Your task to perform on an android device: Do I have any events tomorrow? Image 0: 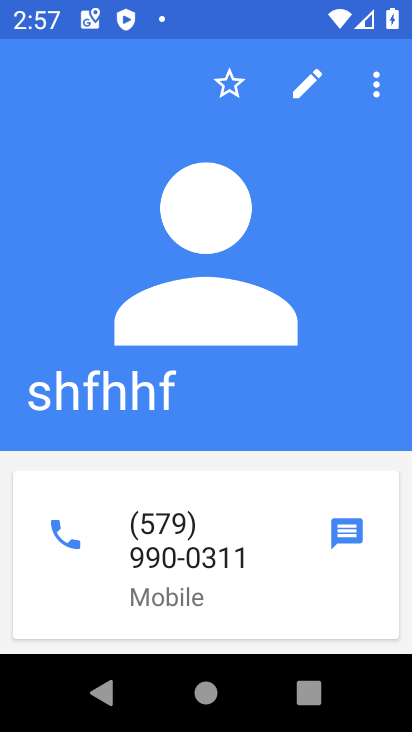
Step 0: press home button
Your task to perform on an android device: Do I have any events tomorrow? Image 1: 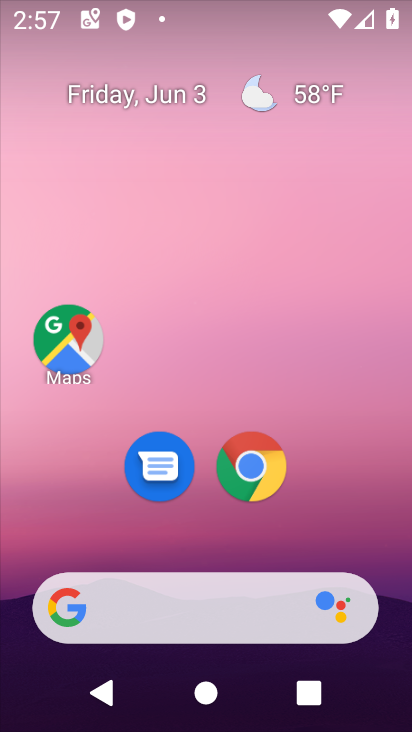
Step 1: click (387, 476)
Your task to perform on an android device: Do I have any events tomorrow? Image 2: 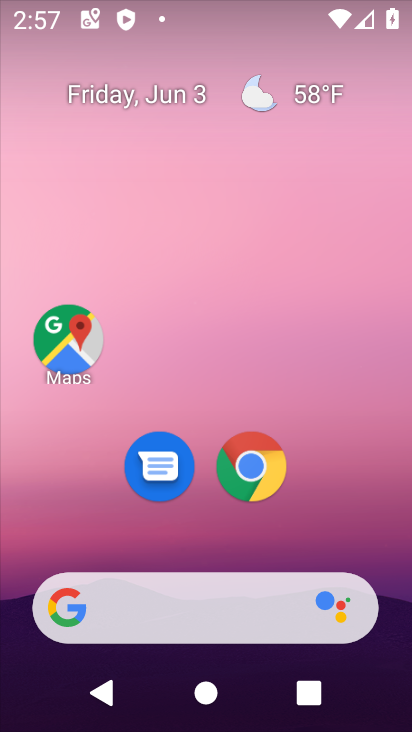
Step 2: drag from (387, 476) to (376, 9)
Your task to perform on an android device: Do I have any events tomorrow? Image 3: 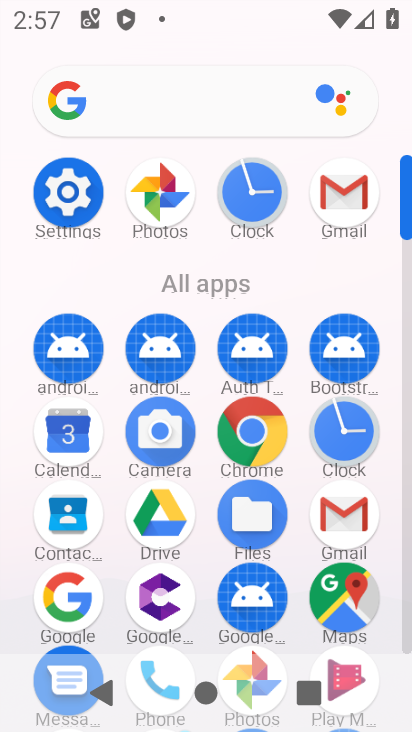
Step 3: click (62, 446)
Your task to perform on an android device: Do I have any events tomorrow? Image 4: 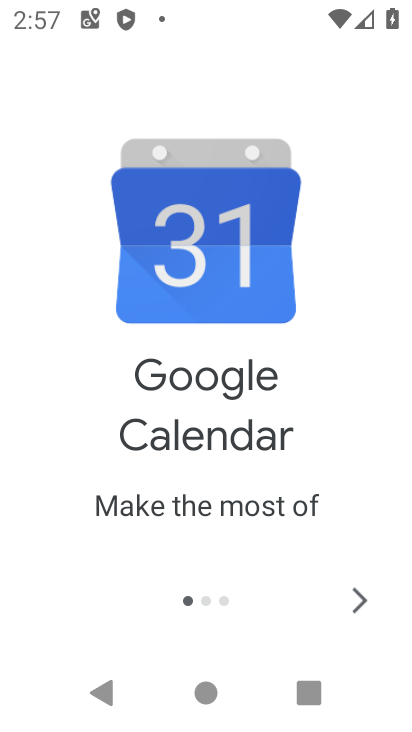
Step 4: click (356, 601)
Your task to perform on an android device: Do I have any events tomorrow? Image 5: 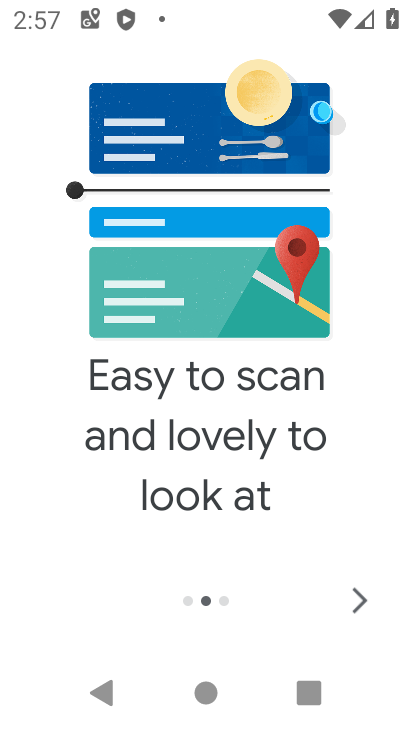
Step 5: click (356, 601)
Your task to perform on an android device: Do I have any events tomorrow? Image 6: 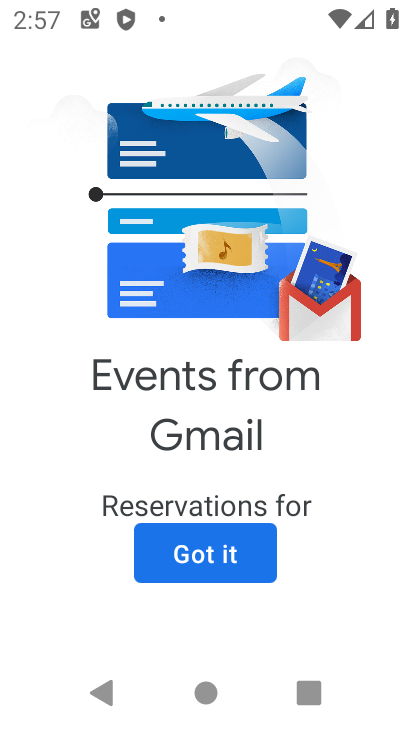
Step 6: click (245, 547)
Your task to perform on an android device: Do I have any events tomorrow? Image 7: 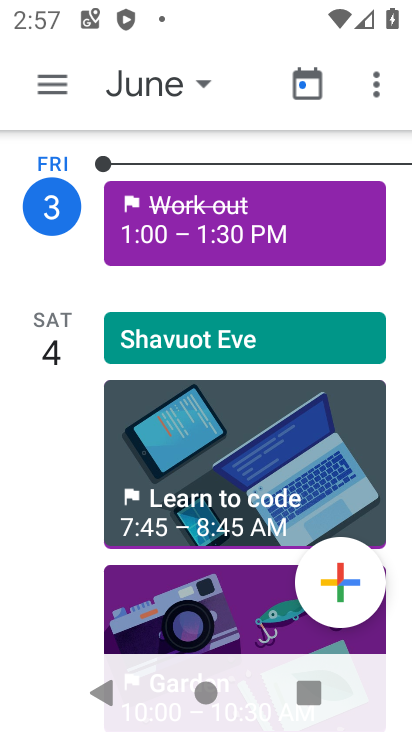
Step 7: click (40, 345)
Your task to perform on an android device: Do I have any events tomorrow? Image 8: 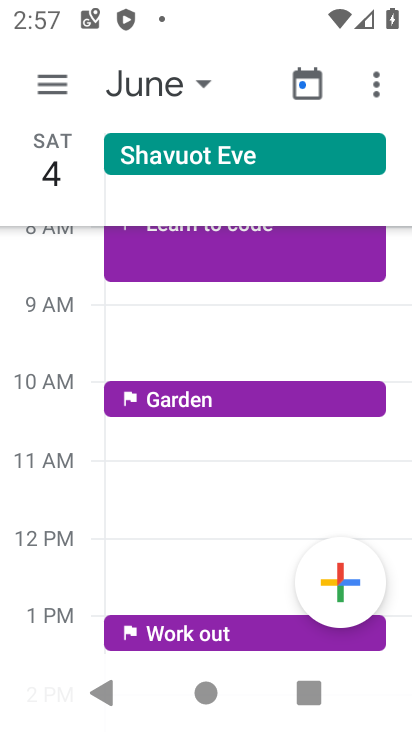
Step 8: task complete